Your task to perform on an android device: Search for Mexican restaurants on Maps Image 0: 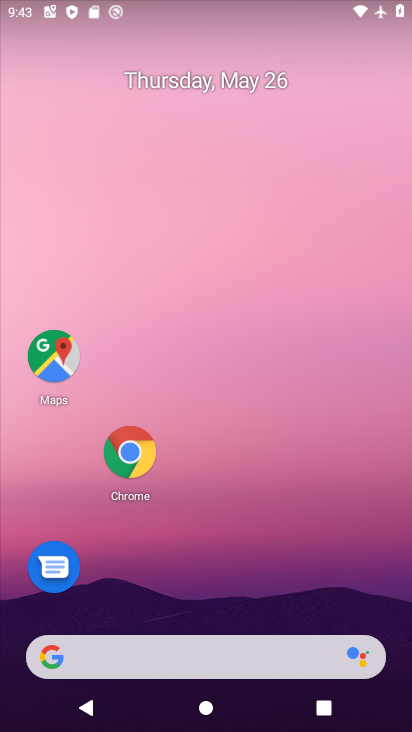
Step 0: click (56, 358)
Your task to perform on an android device: Search for Mexican restaurants on Maps Image 1: 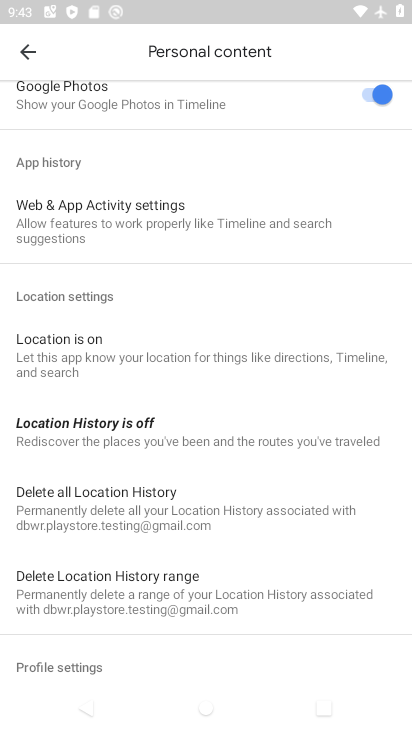
Step 1: click (27, 45)
Your task to perform on an android device: Search for Mexican restaurants on Maps Image 2: 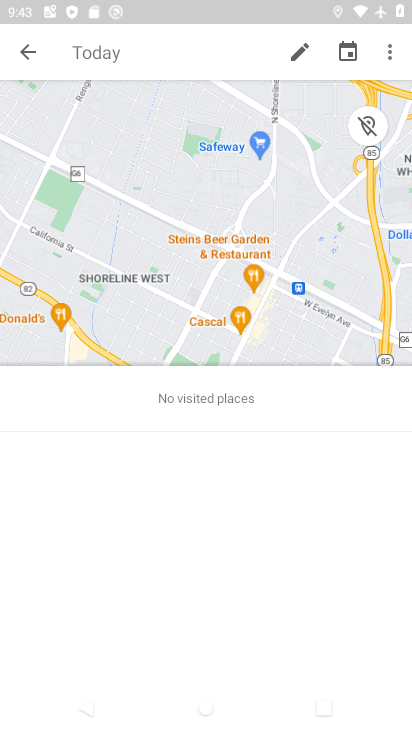
Step 2: click (27, 48)
Your task to perform on an android device: Search for Mexican restaurants on Maps Image 3: 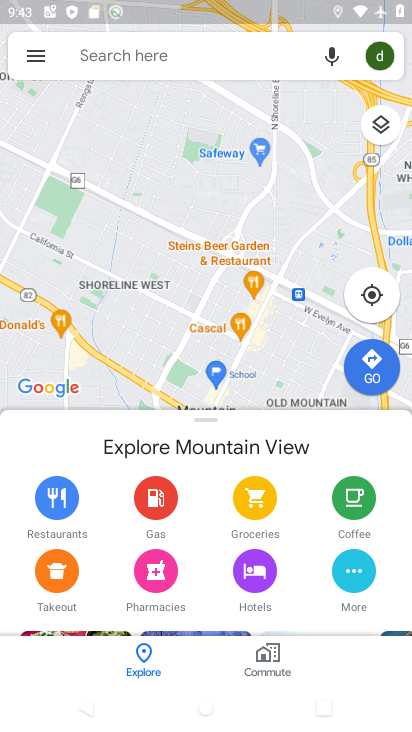
Step 3: click (184, 55)
Your task to perform on an android device: Search for Mexican restaurants on Maps Image 4: 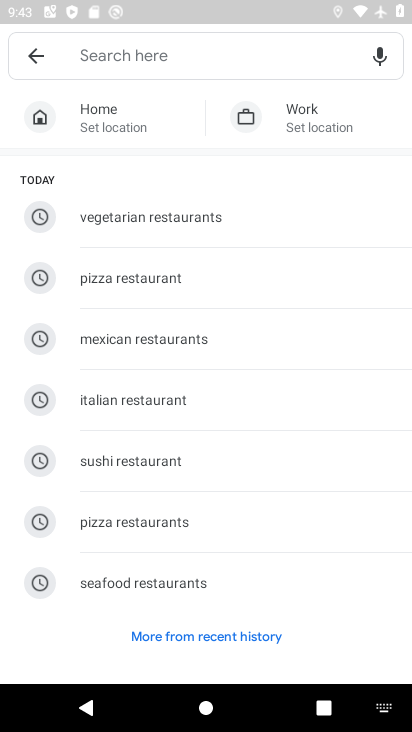
Step 4: click (170, 341)
Your task to perform on an android device: Search for Mexican restaurants on Maps Image 5: 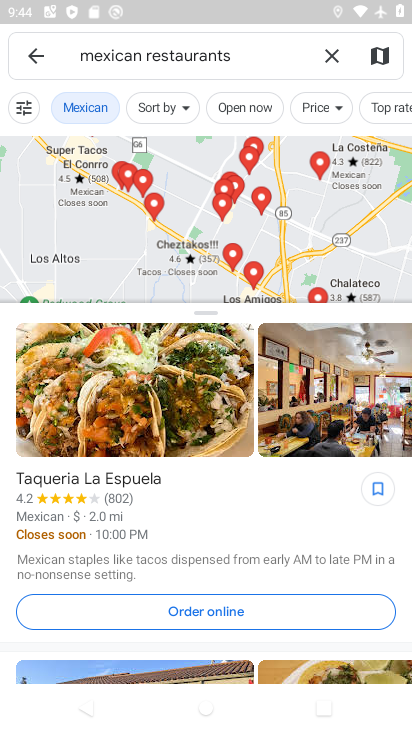
Step 5: task complete